Your task to perform on an android device: Open maps Image 0: 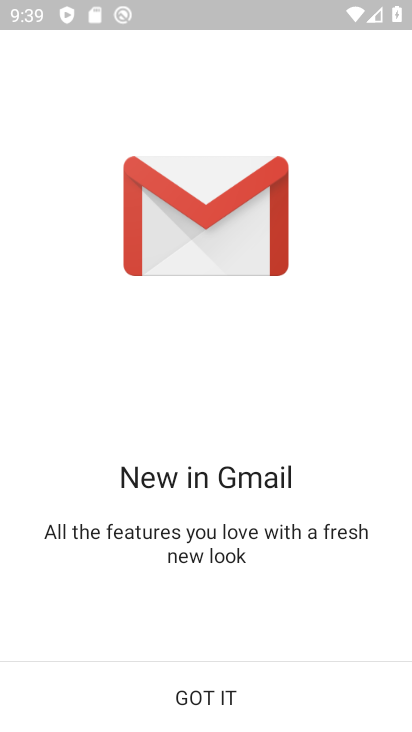
Step 0: press back button
Your task to perform on an android device: Open maps Image 1: 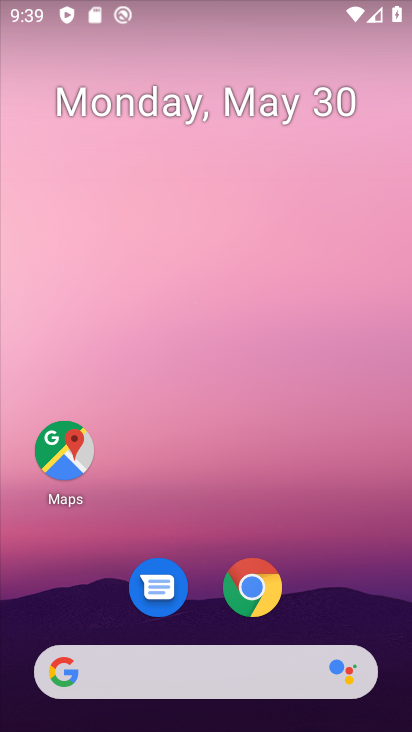
Step 1: drag from (307, 576) to (289, 9)
Your task to perform on an android device: Open maps Image 2: 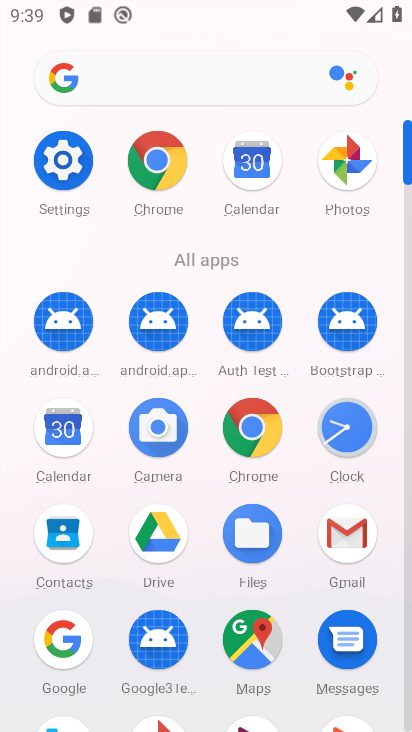
Step 2: drag from (12, 462) to (12, 247)
Your task to perform on an android device: Open maps Image 3: 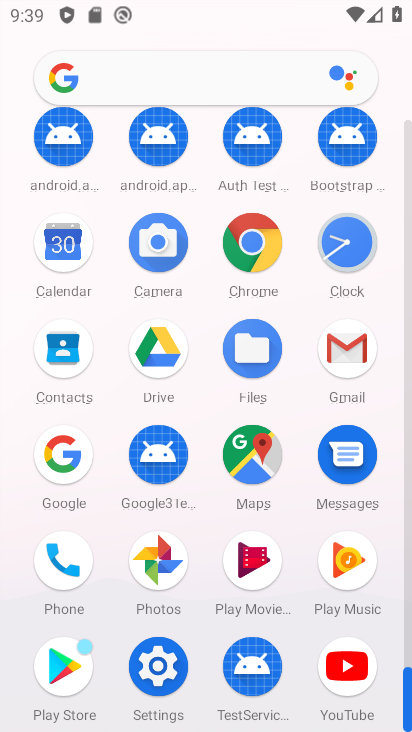
Step 3: click (248, 453)
Your task to perform on an android device: Open maps Image 4: 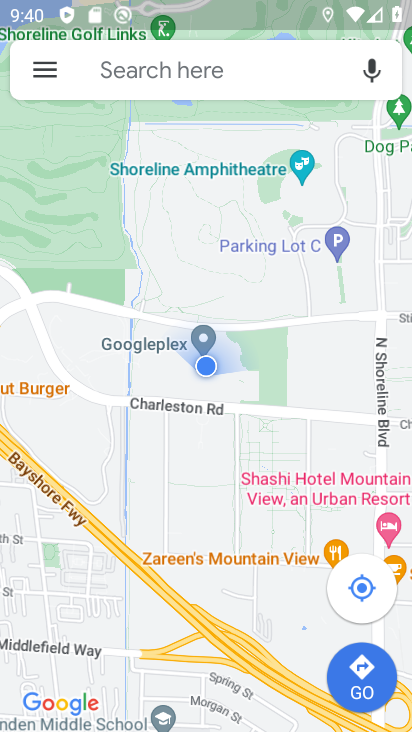
Step 4: task complete